Your task to perform on an android device: Add amazon basics triple a to the cart on newegg.com, then select checkout. Image 0: 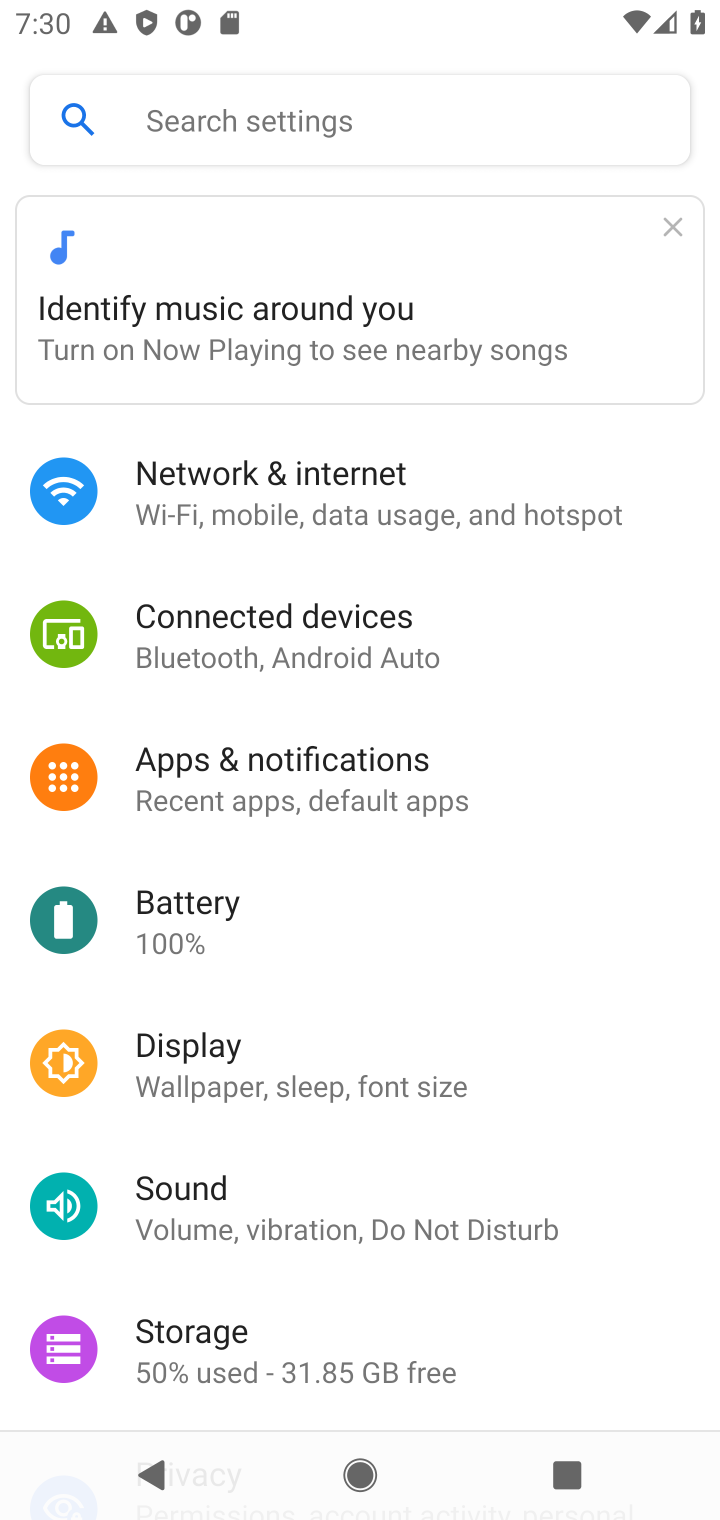
Step 0: press home button
Your task to perform on an android device: Add amazon basics triple a to the cart on newegg.com, then select checkout. Image 1: 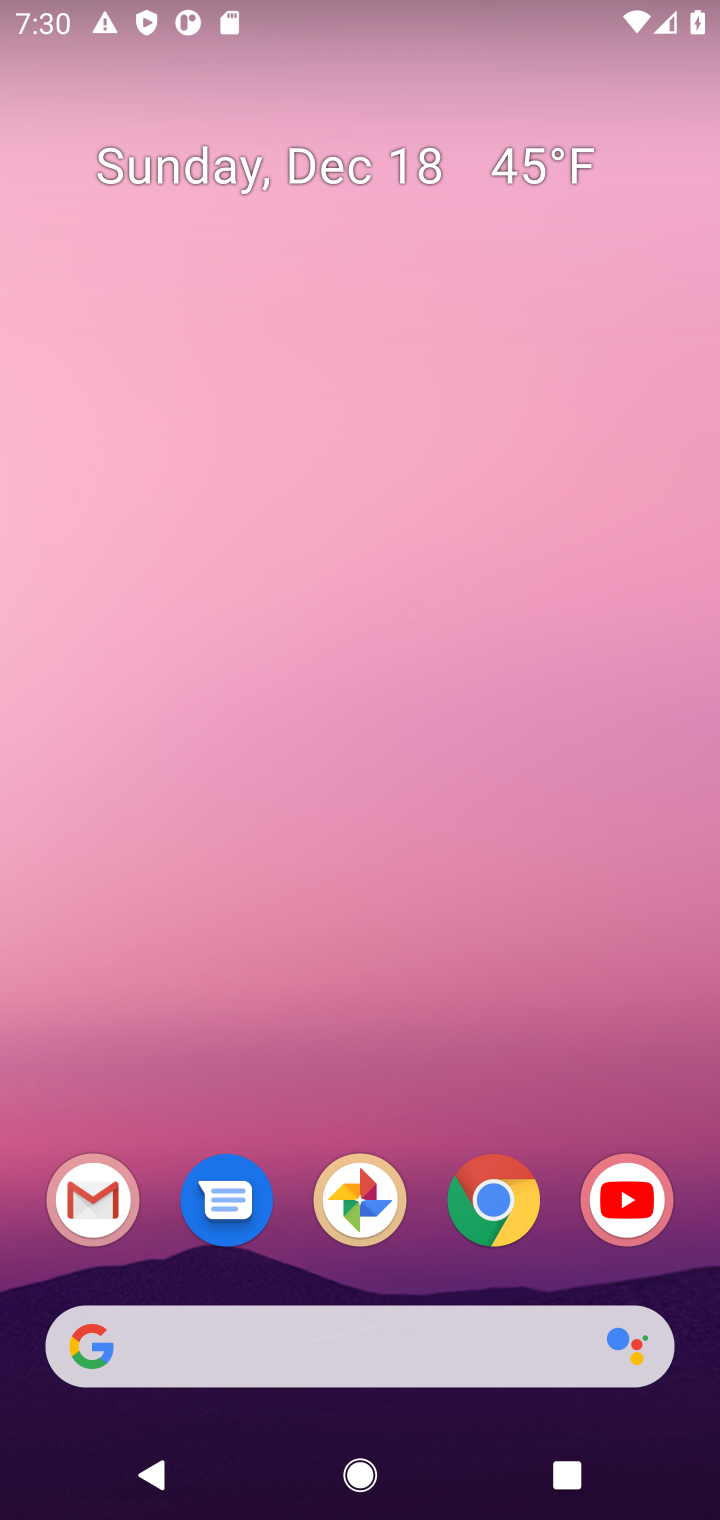
Step 1: click (487, 1215)
Your task to perform on an android device: Add amazon basics triple a to the cart on newegg.com, then select checkout. Image 2: 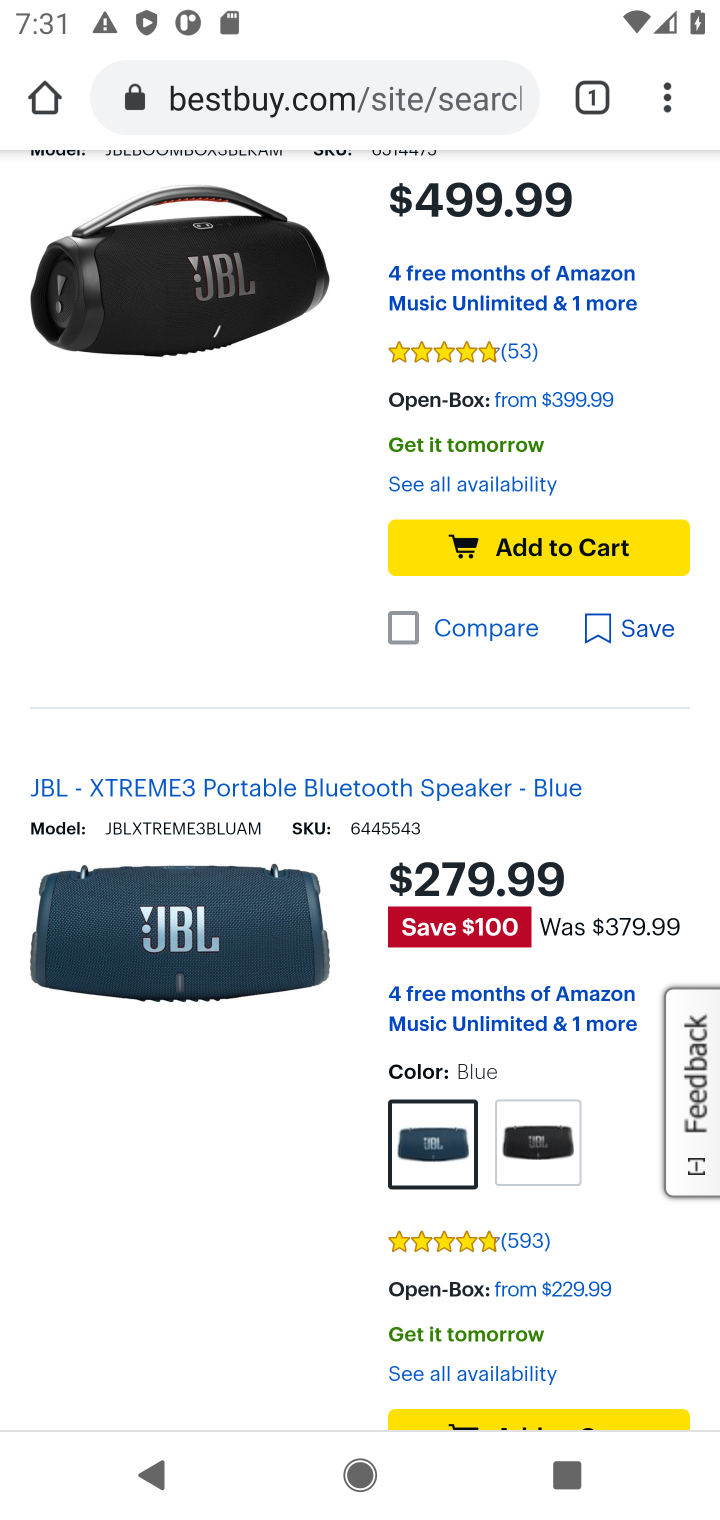
Step 2: click (270, 100)
Your task to perform on an android device: Add amazon basics triple a to the cart on newegg.com, then select checkout. Image 3: 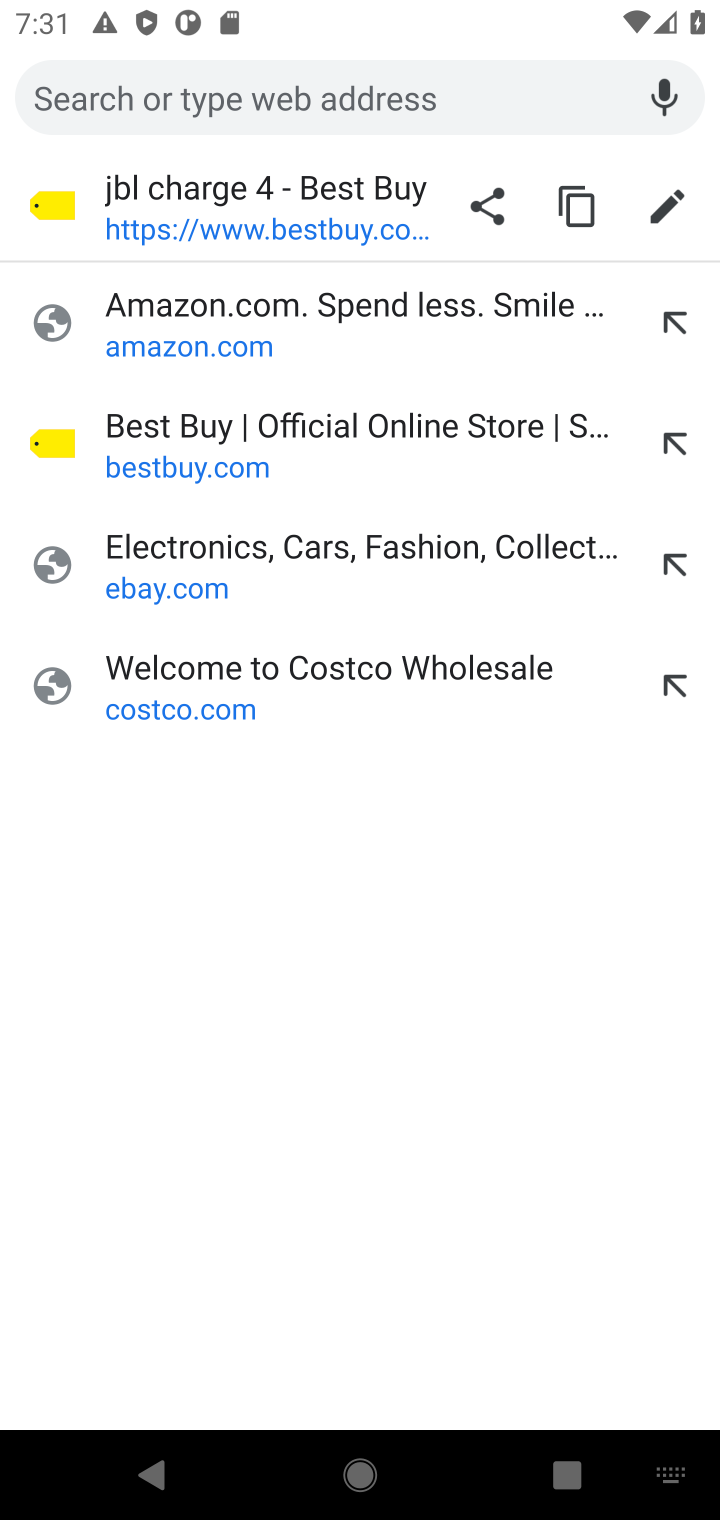
Step 3: type "newegg.com"
Your task to perform on an android device: Add amazon basics triple a to the cart on newegg.com, then select checkout. Image 4: 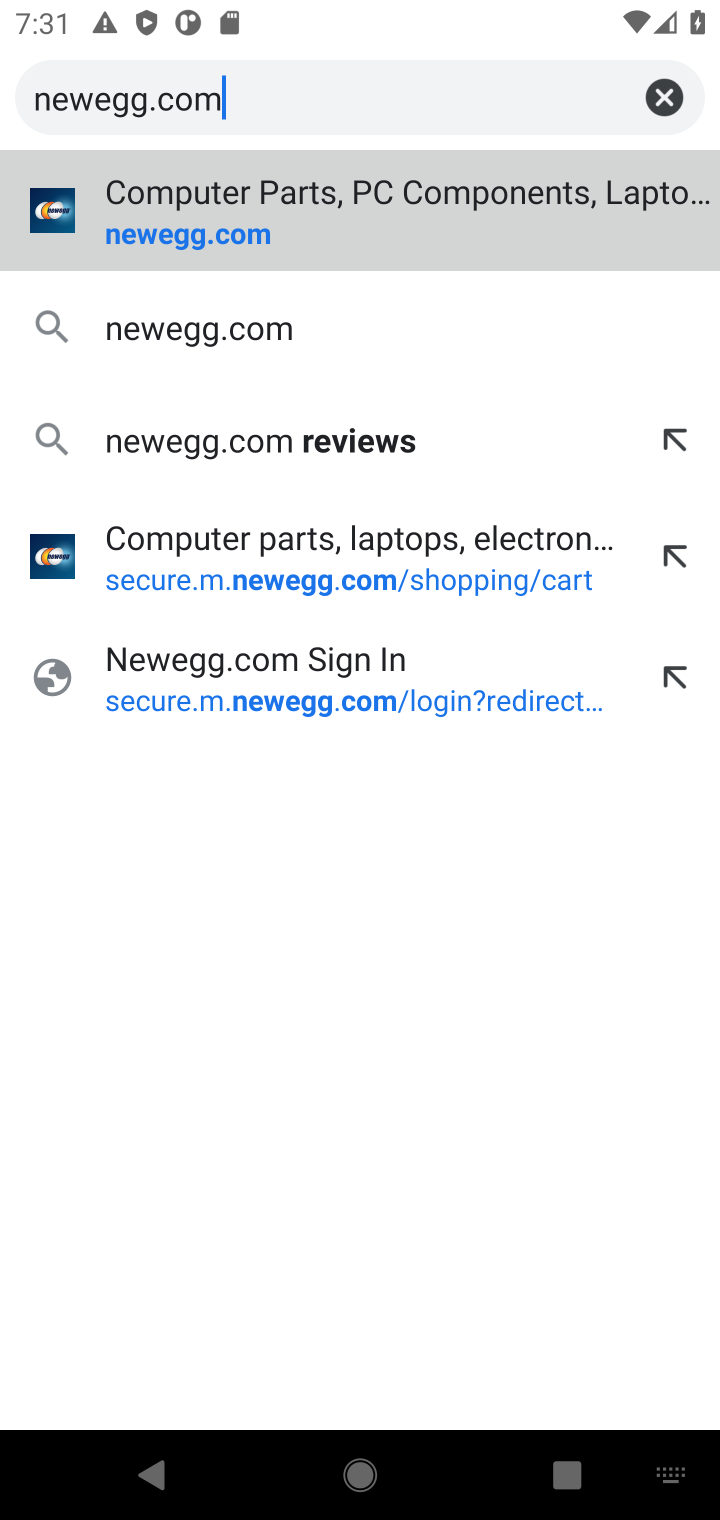
Step 4: click (163, 228)
Your task to perform on an android device: Add amazon basics triple a to the cart on newegg.com, then select checkout. Image 5: 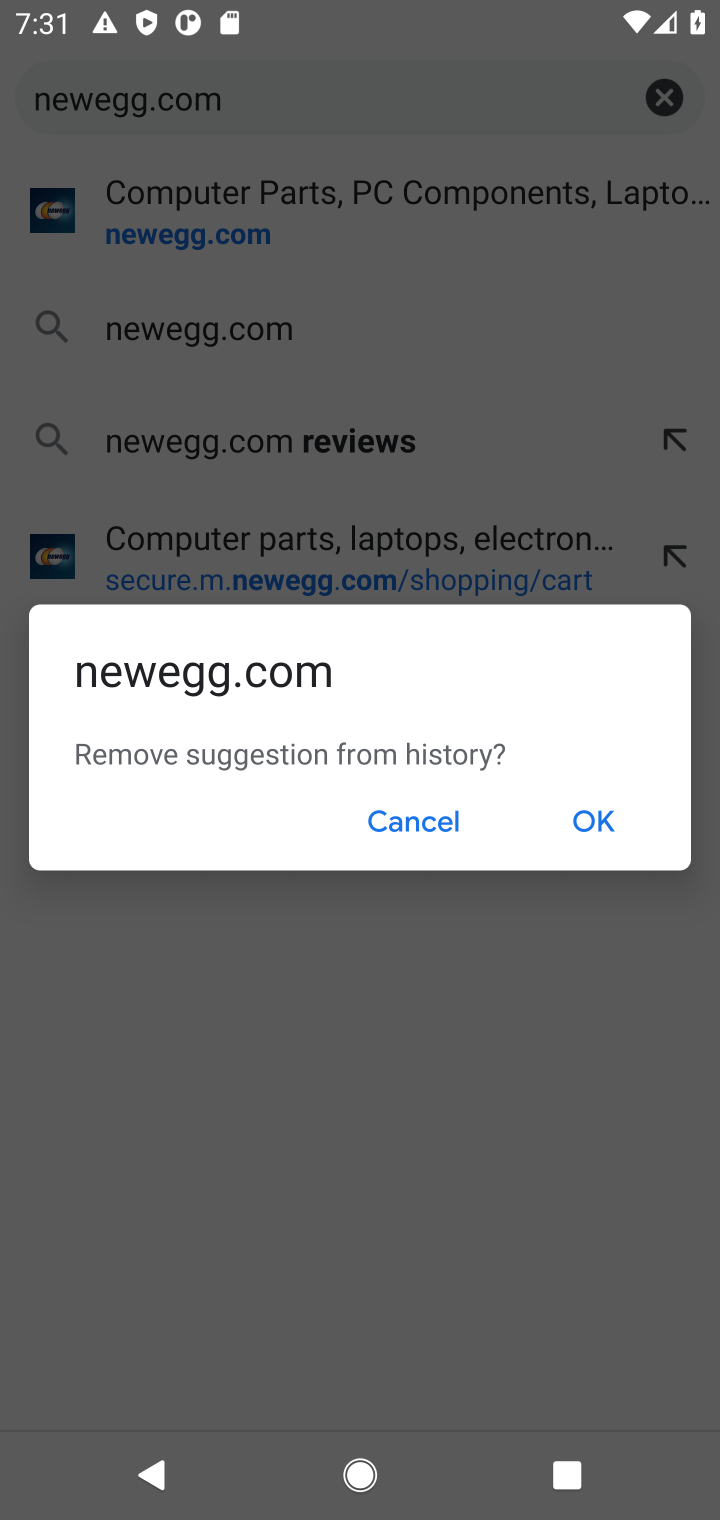
Step 5: click (403, 836)
Your task to perform on an android device: Add amazon basics triple a to the cart on newegg.com, then select checkout. Image 6: 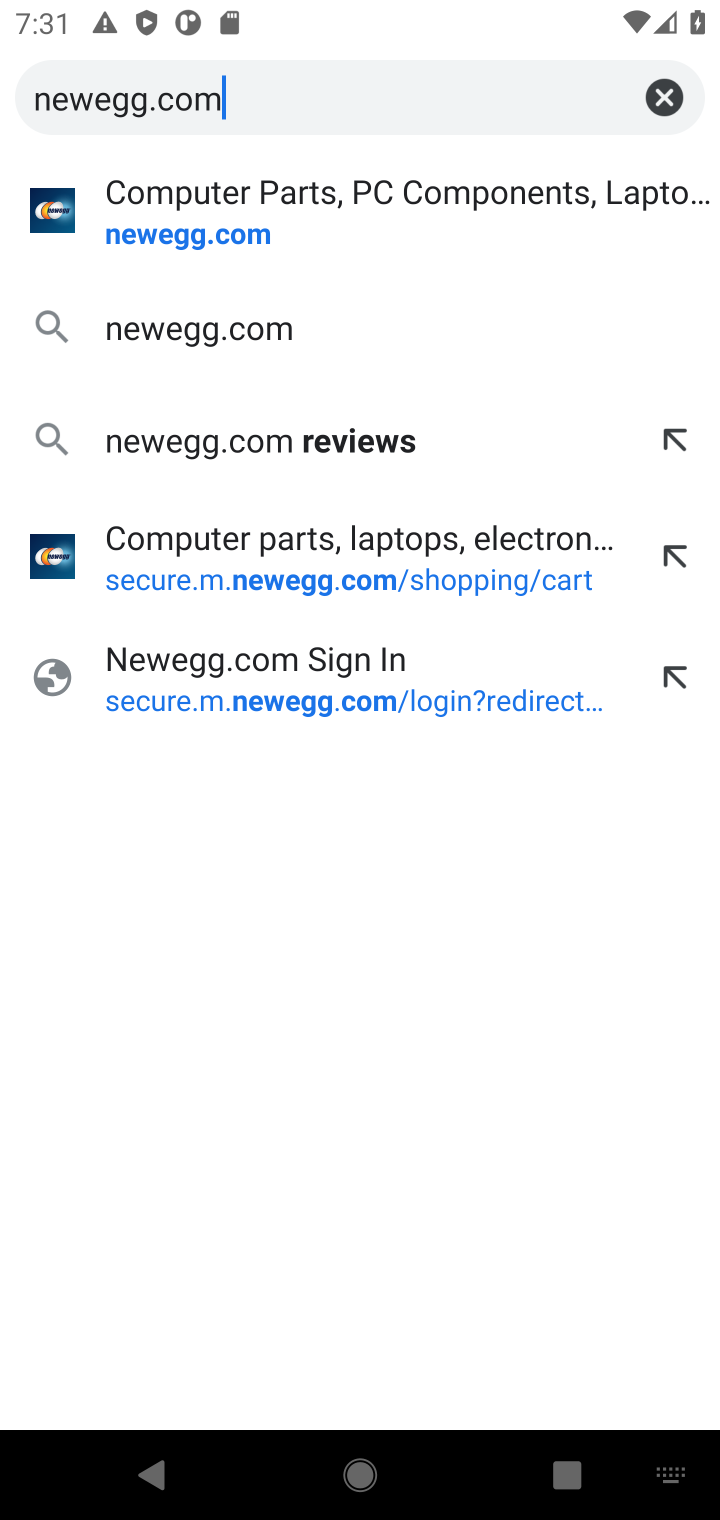
Step 6: click (154, 247)
Your task to perform on an android device: Add amazon basics triple a to the cart on newegg.com, then select checkout. Image 7: 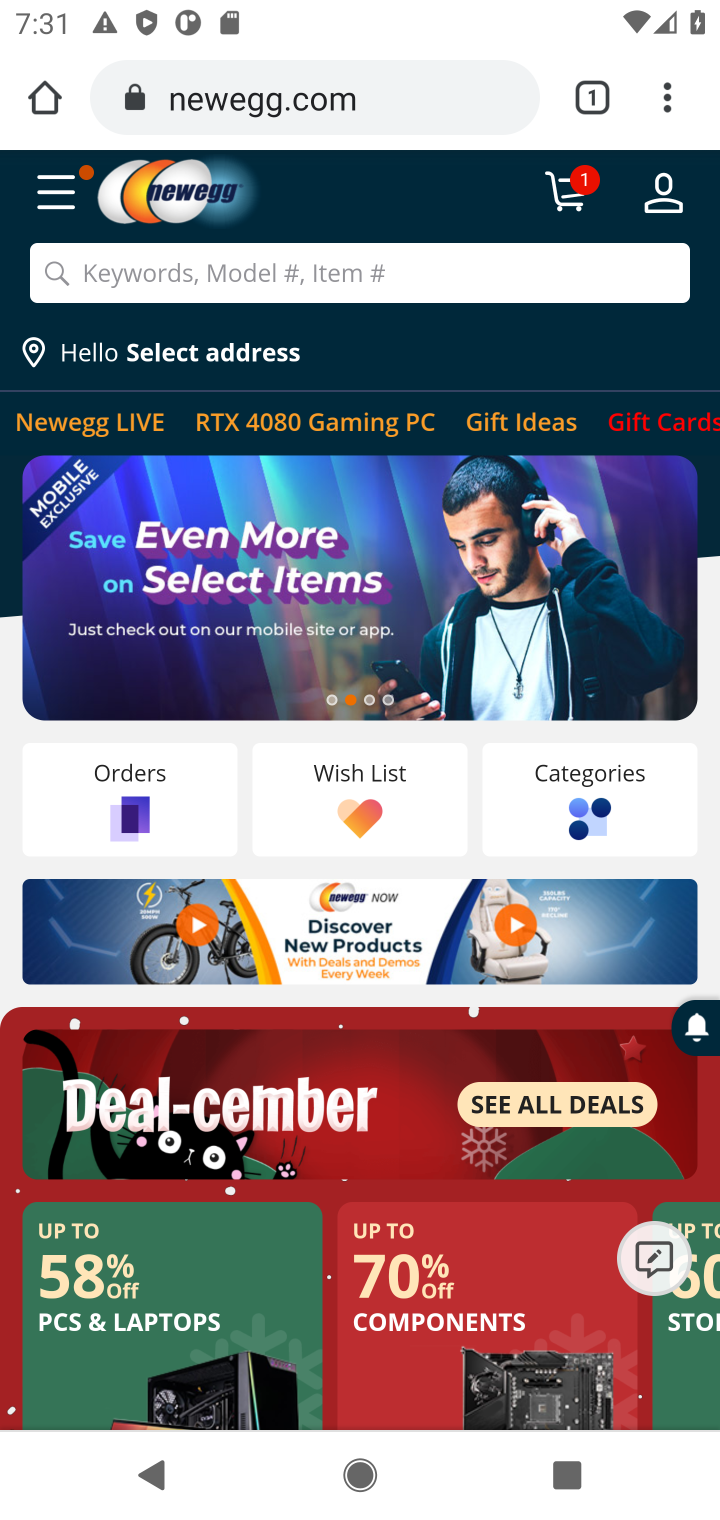
Step 7: click (117, 282)
Your task to perform on an android device: Add amazon basics triple a to the cart on newegg.com, then select checkout. Image 8: 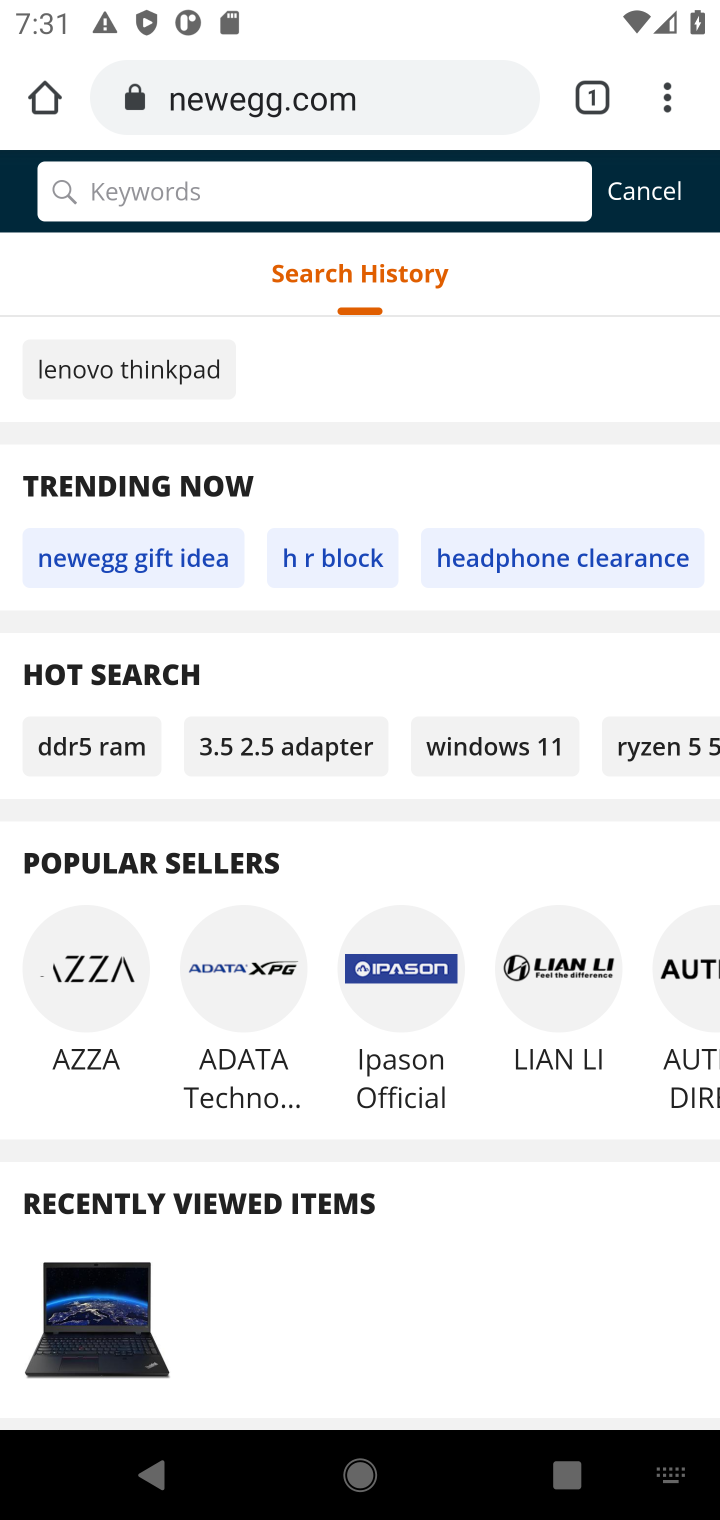
Step 8: type "amazon basics triple a"
Your task to perform on an android device: Add amazon basics triple a to the cart on newegg.com, then select checkout. Image 9: 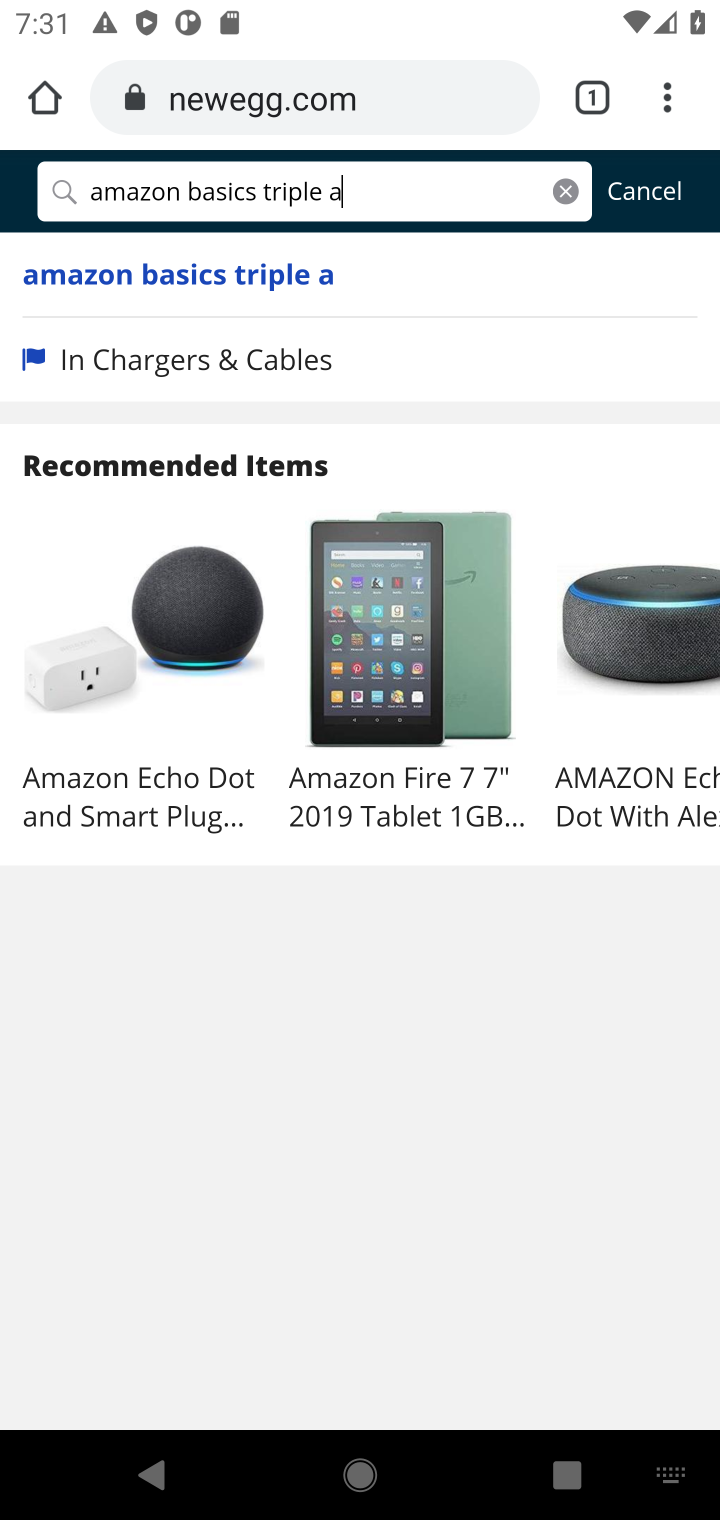
Step 9: click (296, 283)
Your task to perform on an android device: Add amazon basics triple a to the cart on newegg.com, then select checkout. Image 10: 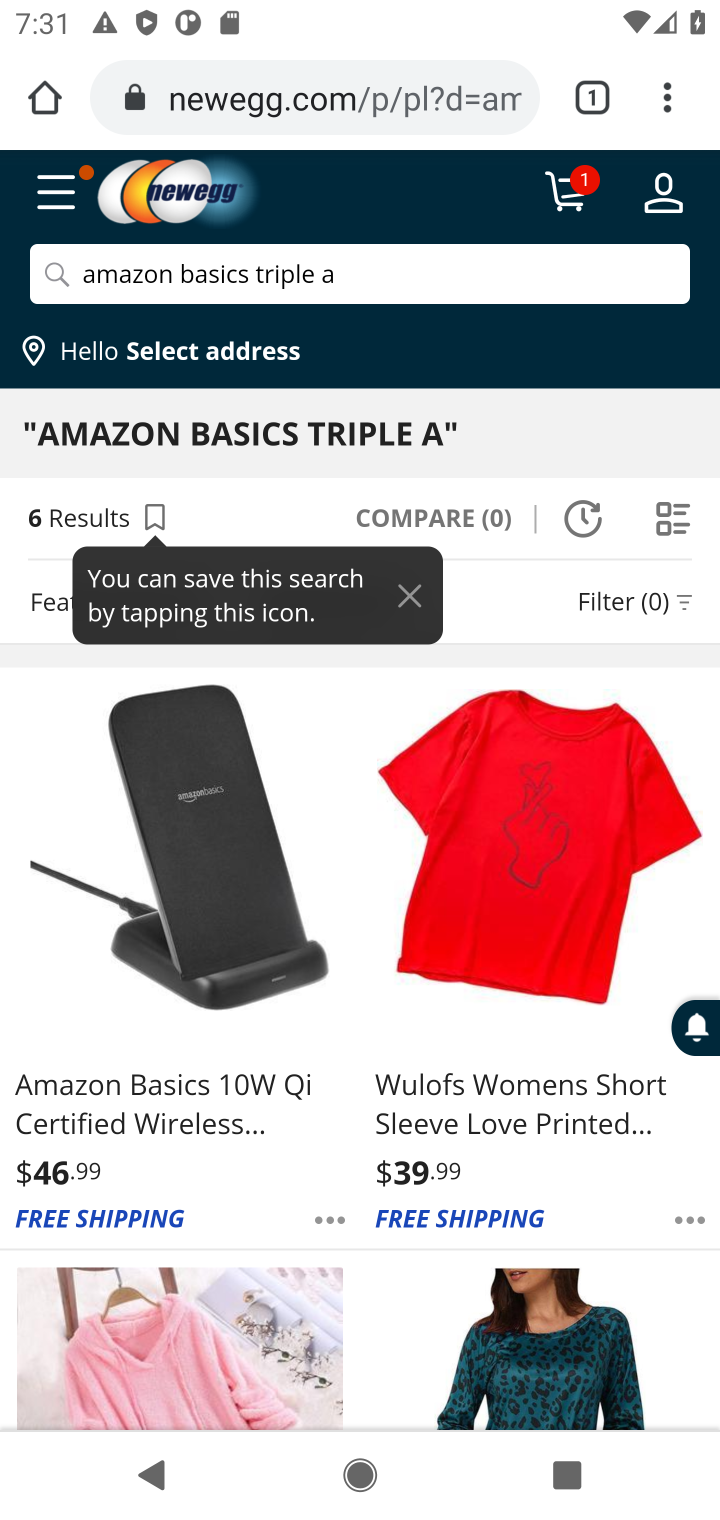
Step 10: task complete